Your task to perform on an android device: change text size in settings app Image 0: 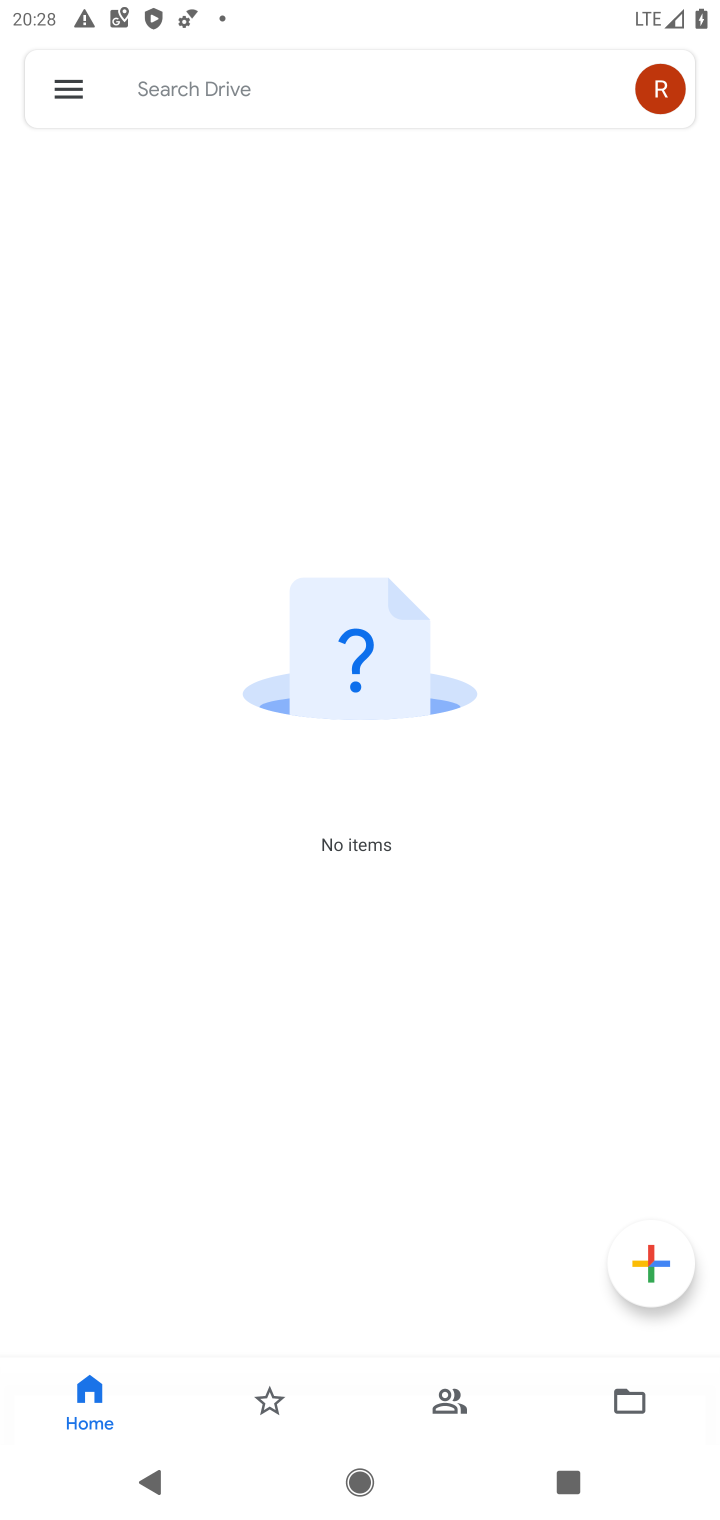
Step 0: press back button
Your task to perform on an android device: change text size in settings app Image 1: 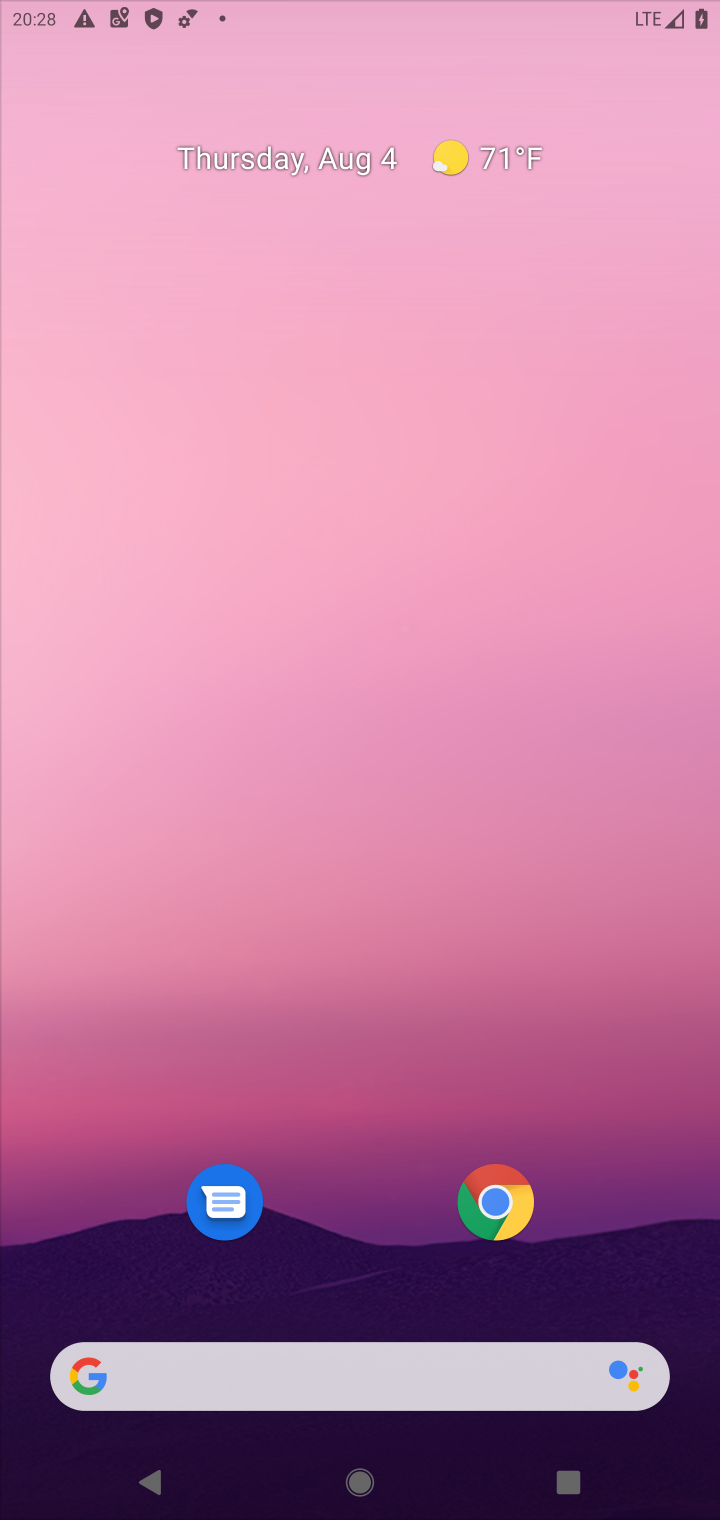
Step 1: press back button
Your task to perform on an android device: change text size in settings app Image 2: 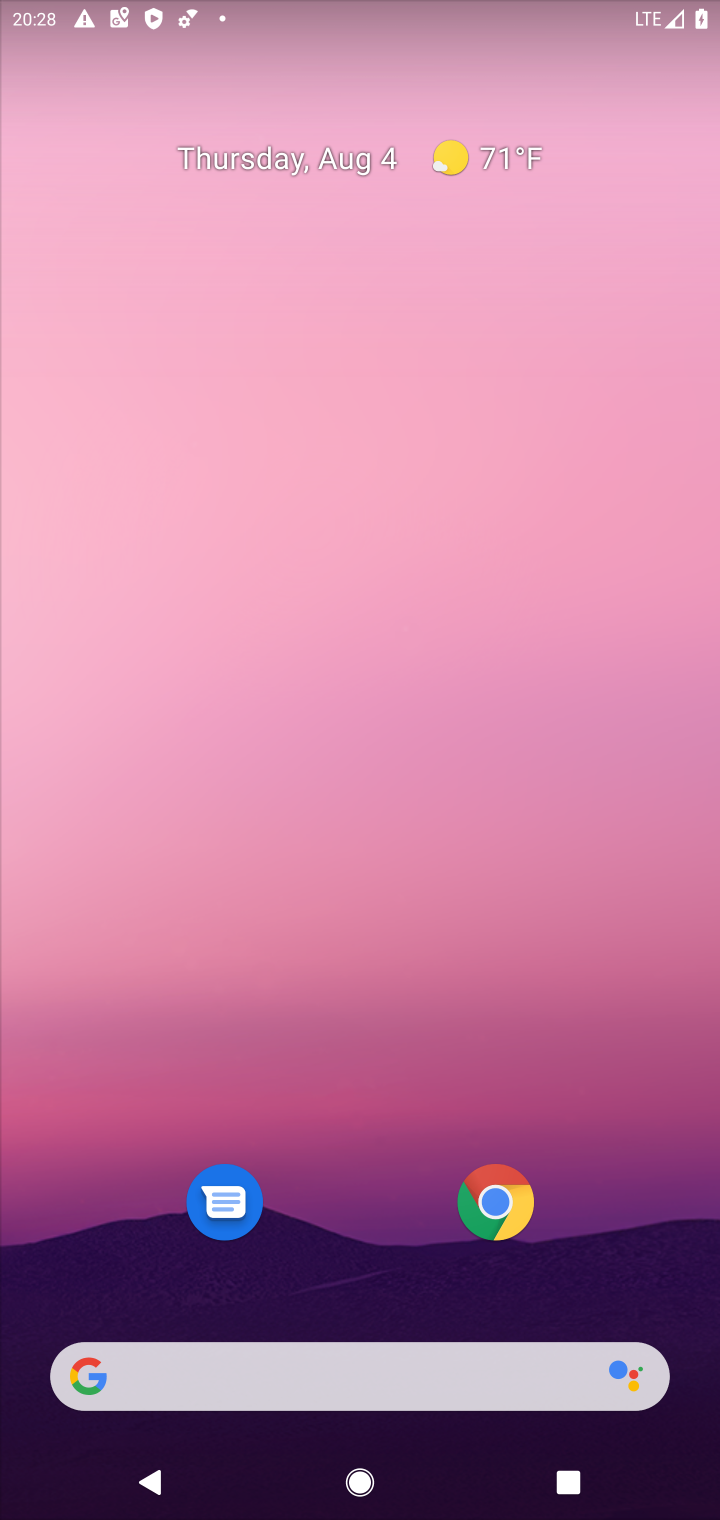
Step 2: drag from (329, 1110) to (289, 155)
Your task to perform on an android device: change text size in settings app Image 3: 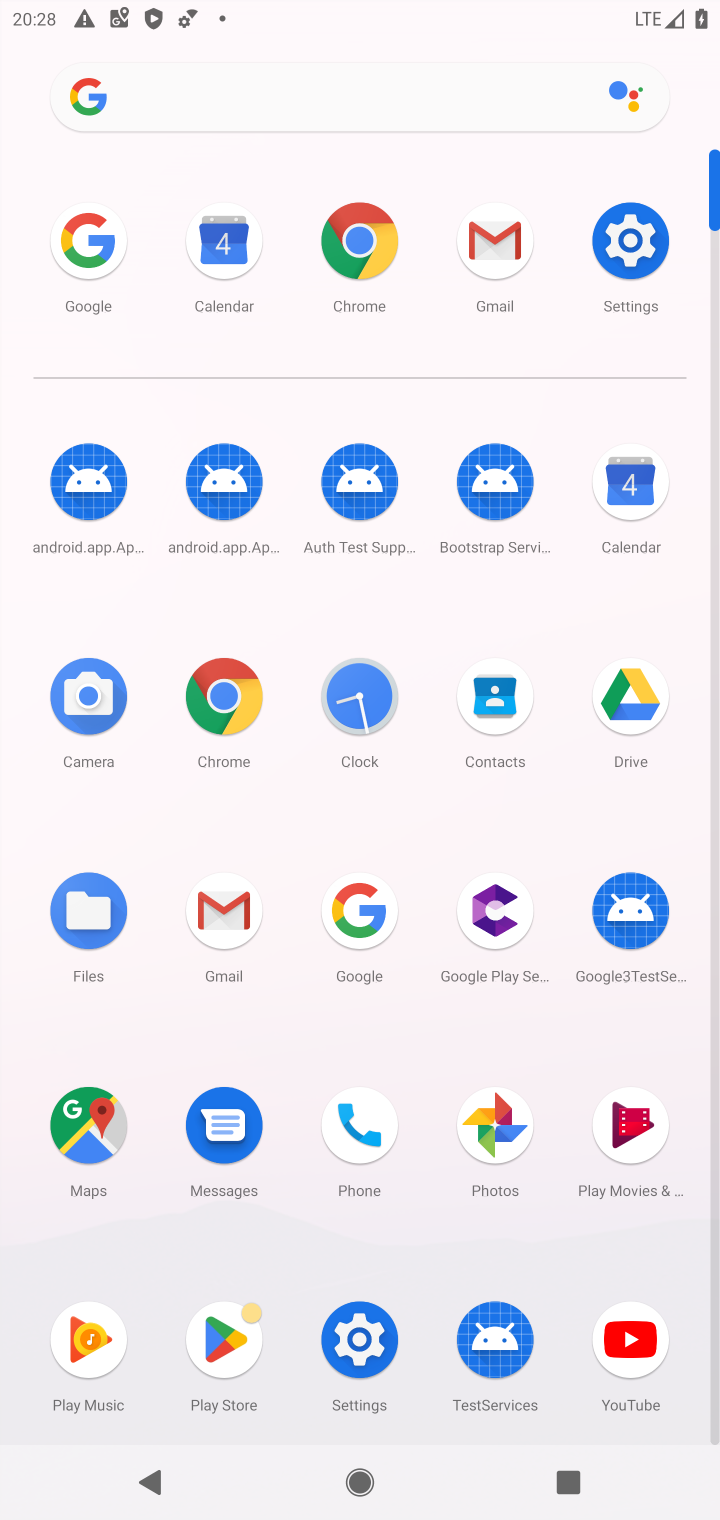
Step 3: click (640, 247)
Your task to perform on an android device: change text size in settings app Image 4: 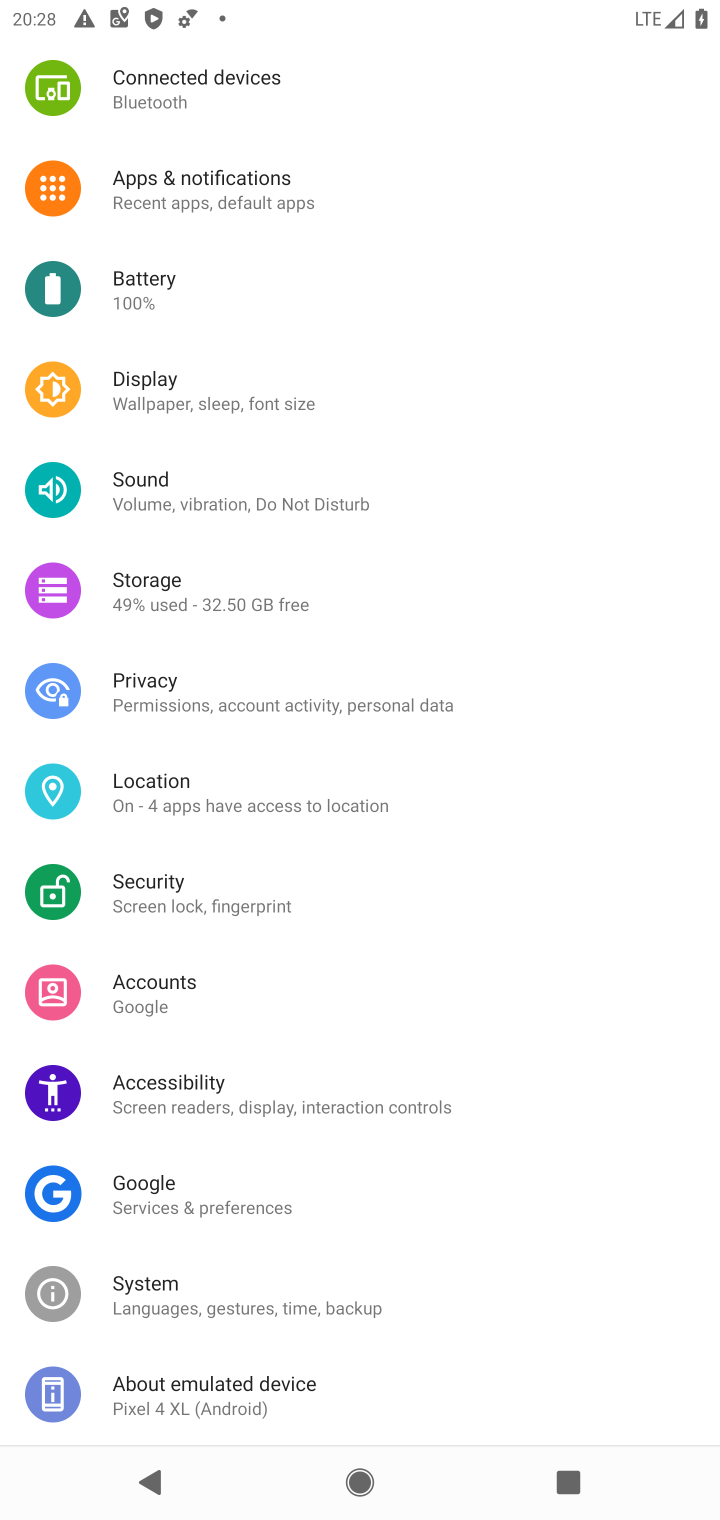
Step 4: click (640, 247)
Your task to perform on an android device: change text size in settings app Image 5: 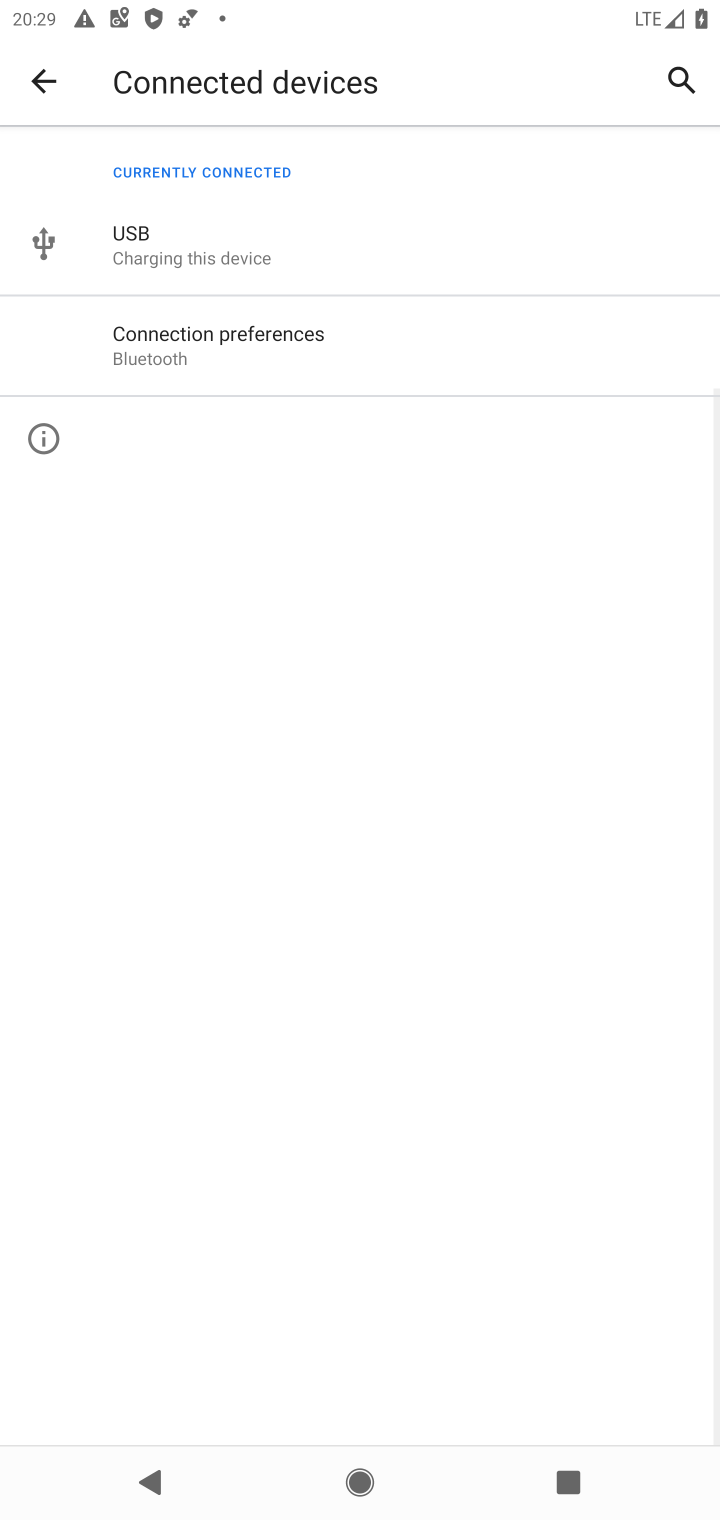
Step 5: press back button
Your task to perform on an android device: change text size in settings app Image 6: 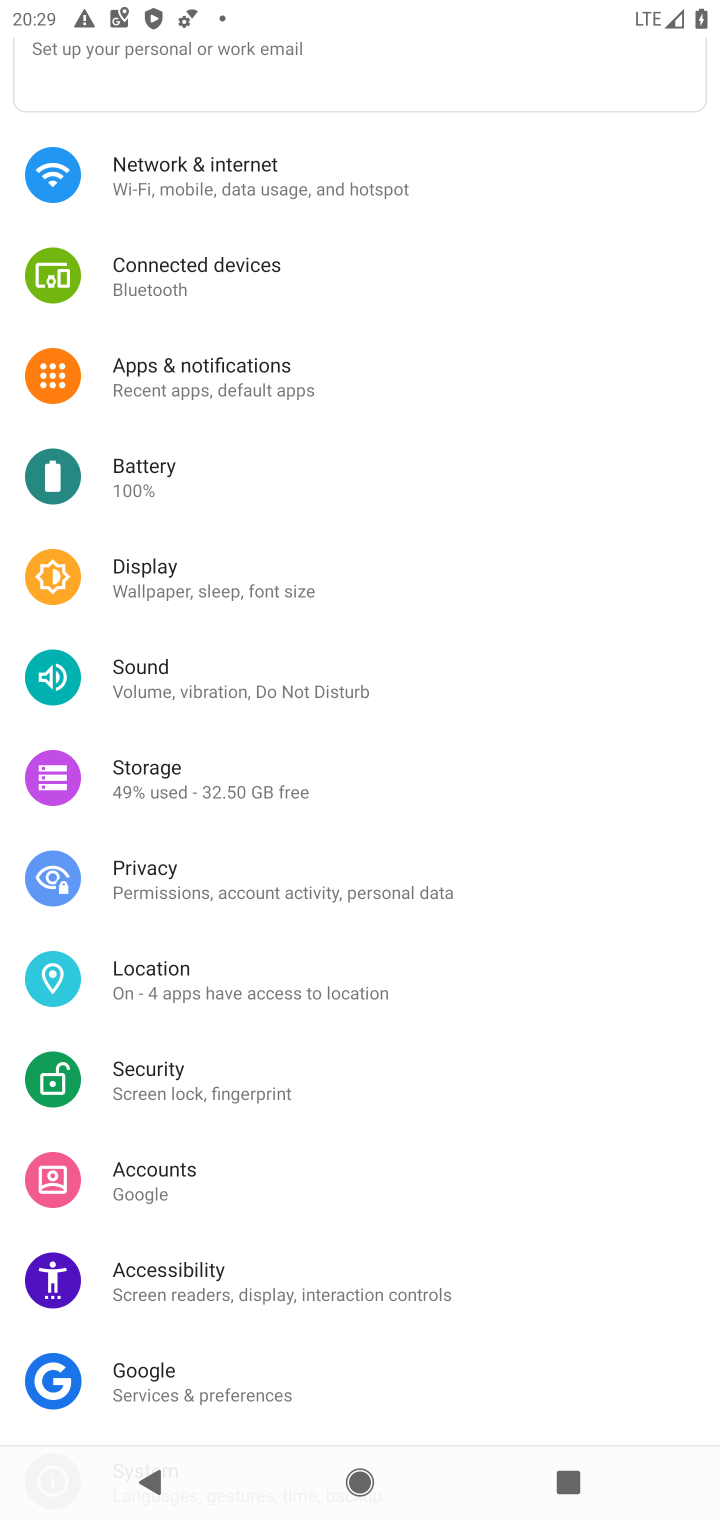
Step 6: click (213, 596)
Your task to perform on an android device: change text size in settings app Image 7: 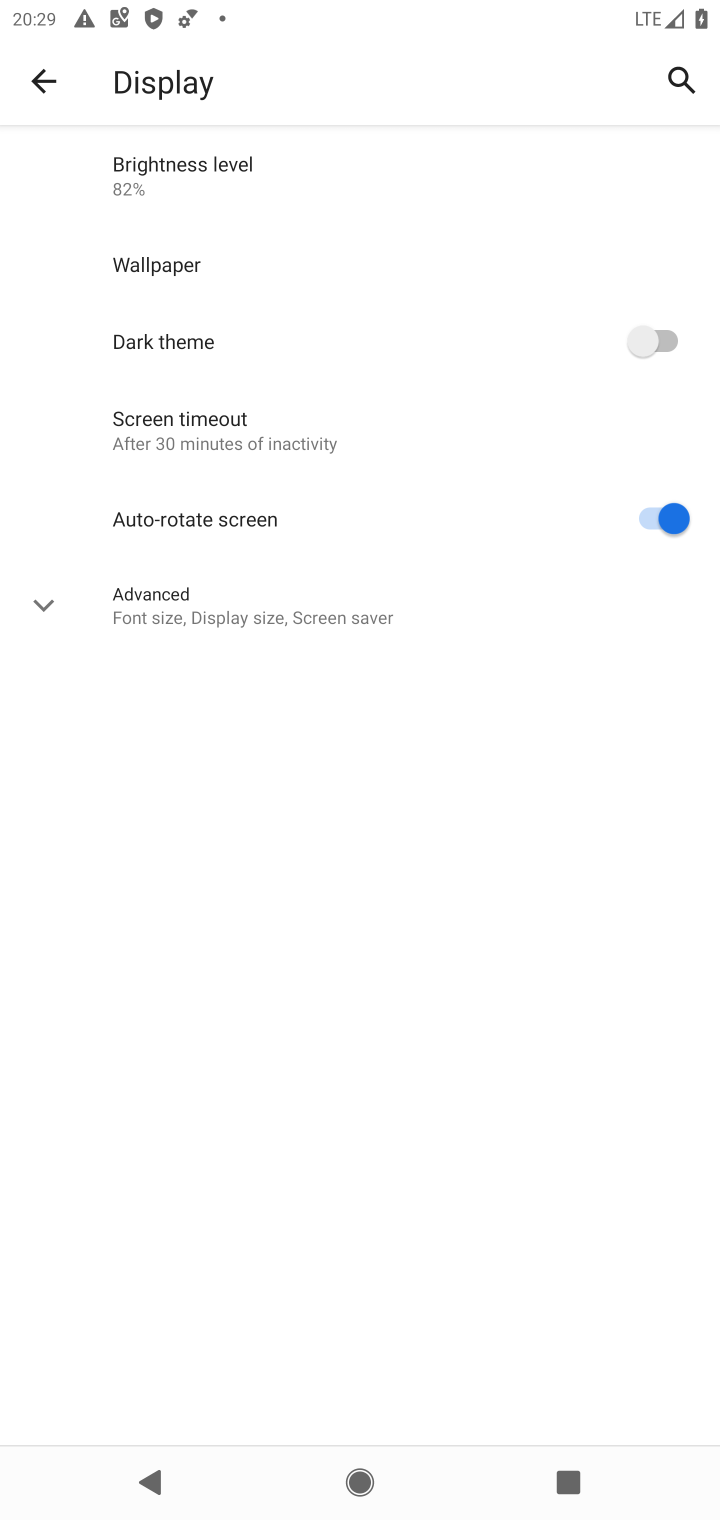
Step 7: click (338, 611)
Your task to perform on an android device: change text size in settings app Image 8: 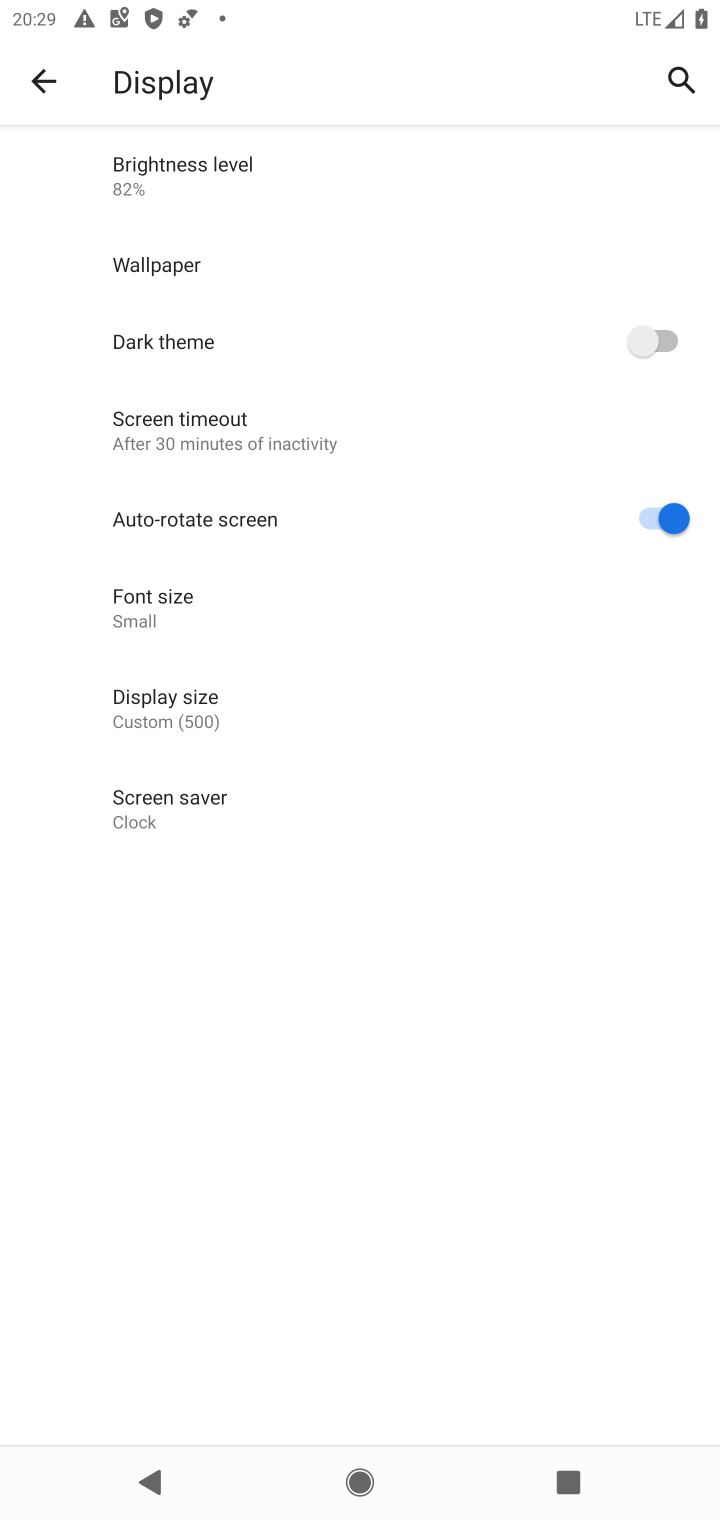
Step 8: click (229, 600)
Your task to perform on an android device: change text size in settings app Image 9: 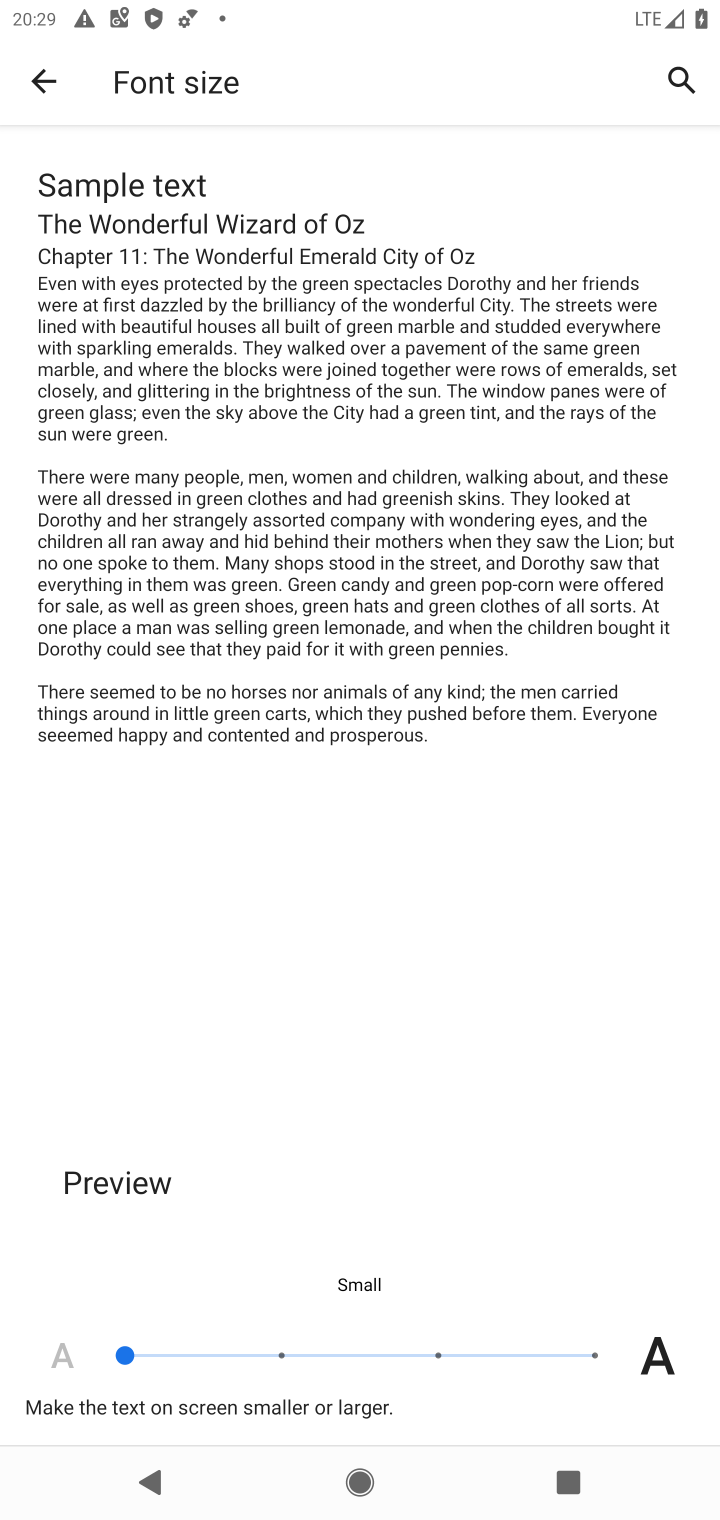
Step 9: click (580, 1342)
Your task to perform on an android device: change text size in settings app Image 10: 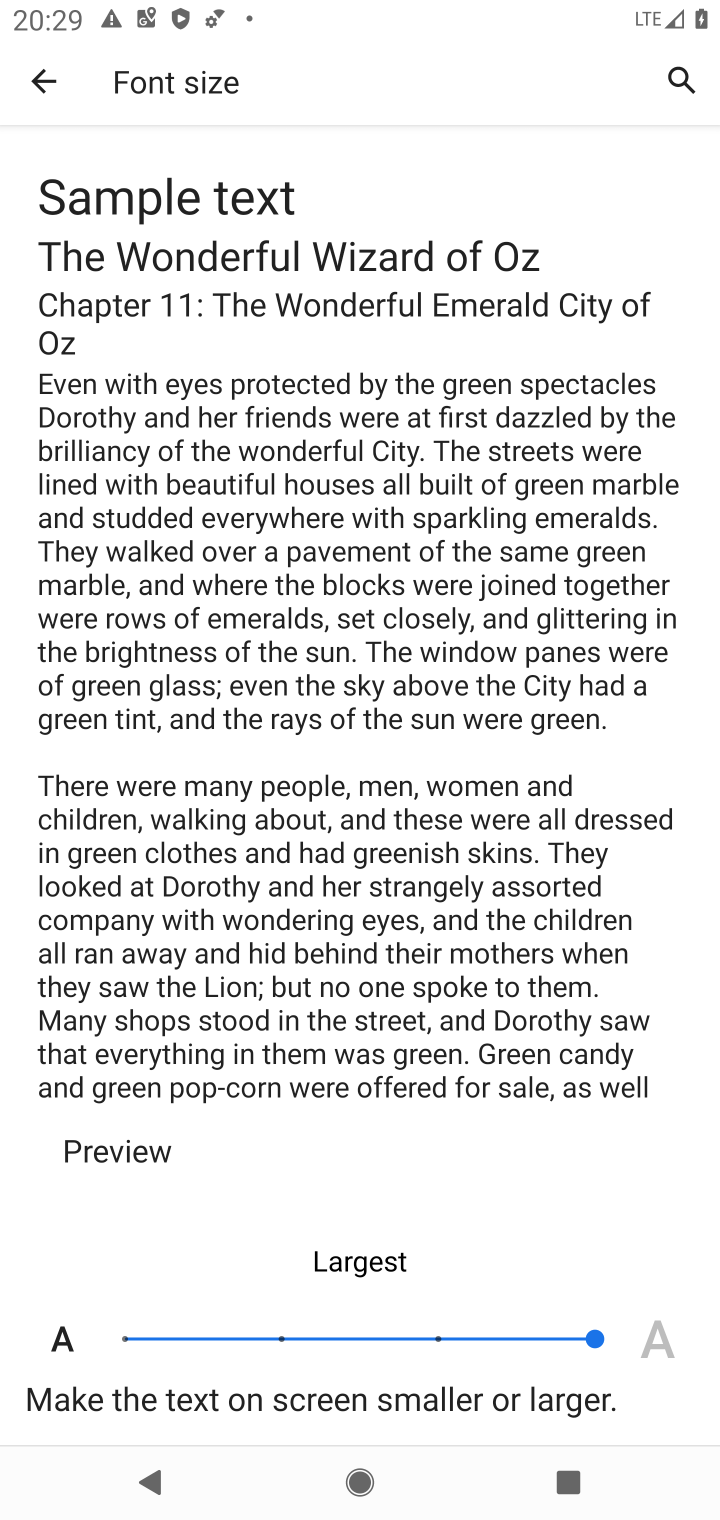
Step 10: task complete